Your task to perform on an android device: check data usage Image 0: 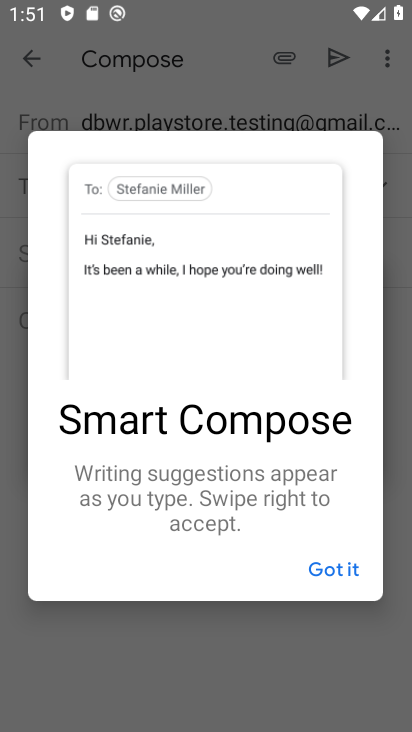
Step 0: press home button
Your task to perform on an android device: check data usage Image 1: 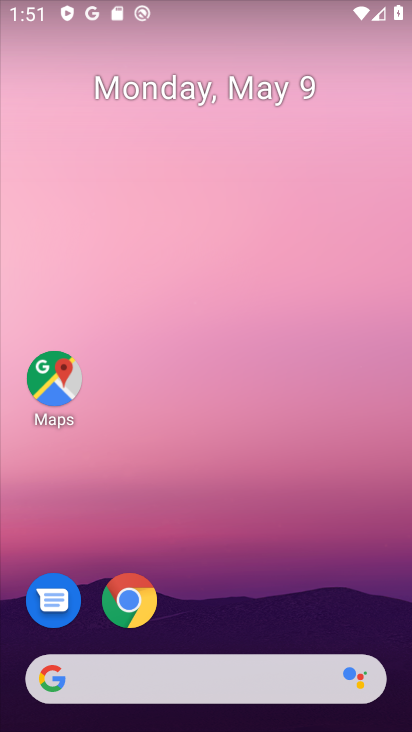
Step 1: drag from (269, 626) to (329, 0)
Your task to perform on an android device: check data usage Image 2: 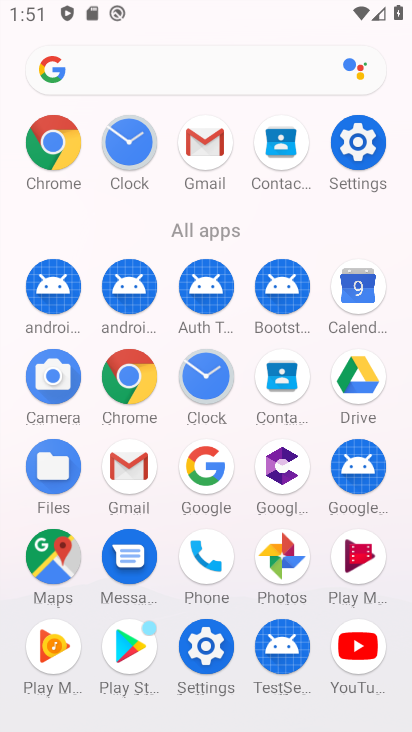
Step 2: click (350, 155)
Your task to perform on an android device: check data usage Image 3: 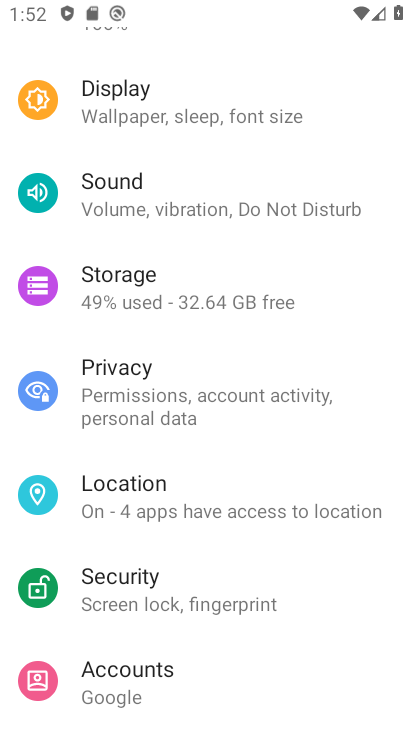
Step 3: drag from (286, 213) to (347, 400)
Your task to perform on an android device: check data usage Image 4: 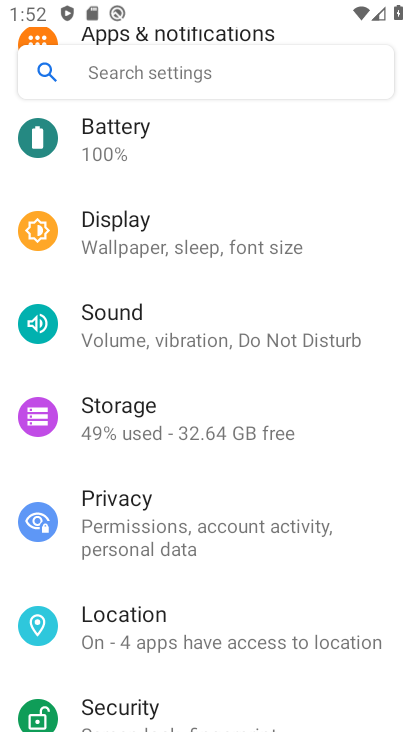
Step 4: drag from (253, 237) to (273, 402)
Your task to perform on an android device: check data usage Image 5: 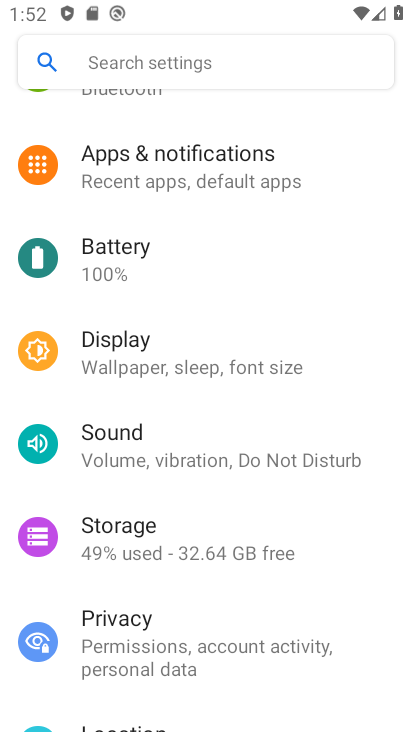
Step 5: drag from (194, 216) to (217, 404)
Your task to perform on an android device: check data usage Image 6: 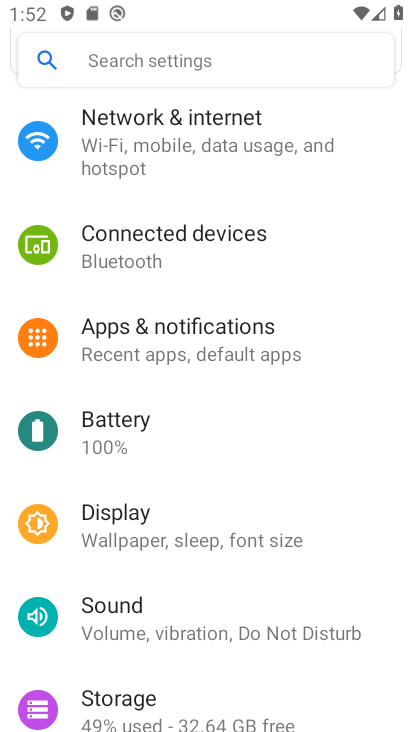
Step 6: click (170, 157)
Your task to perform on an android device: check data usage Image 7: 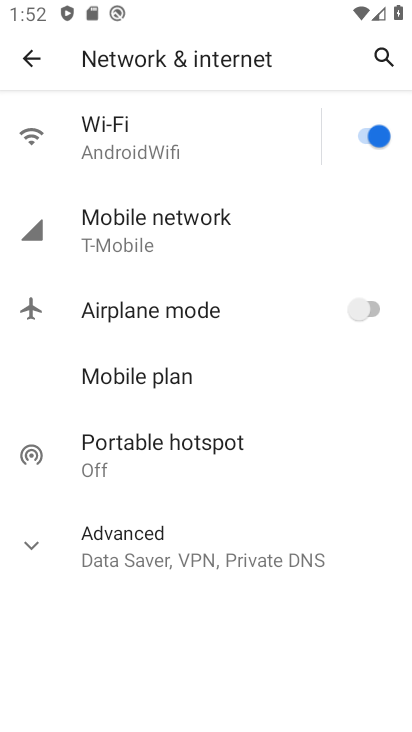
Step 7: click (180, 219)
Your task to perform on an android device: check data usage Image 8: 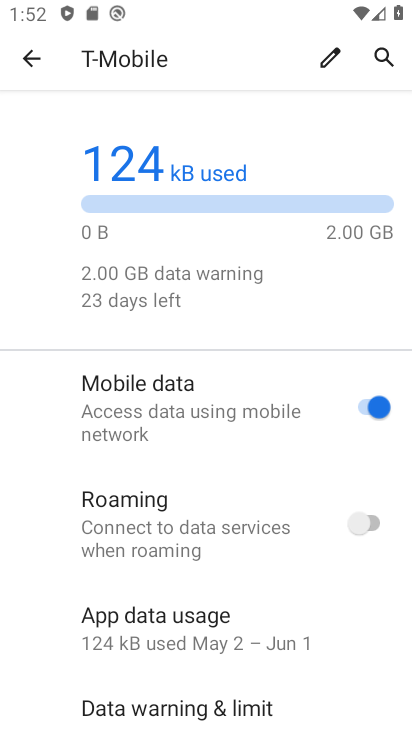
Step 8: task complete